Your task to perform on an android device: Go to accessibility settings Image 0: 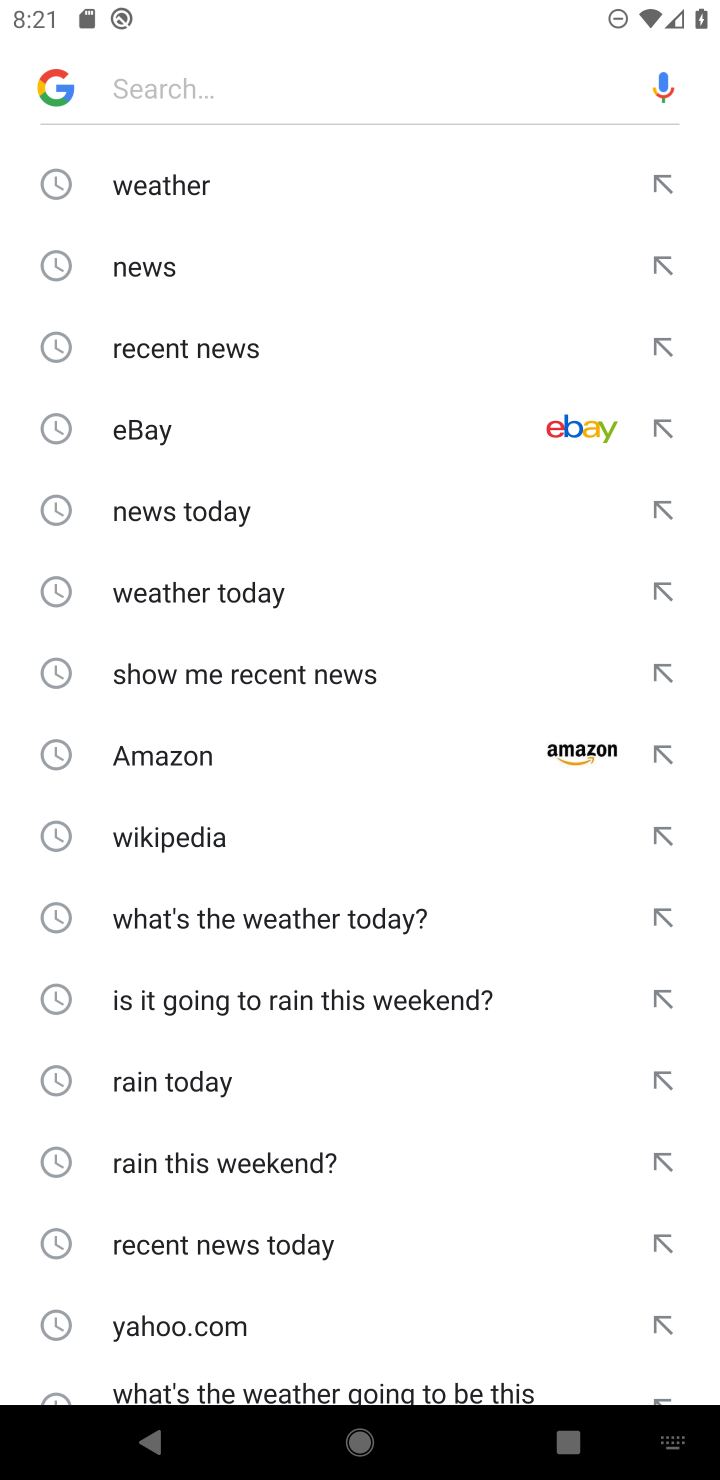
Step 0: press home button
Your task to perform on an android device: Go to accessibility settings Image 1: 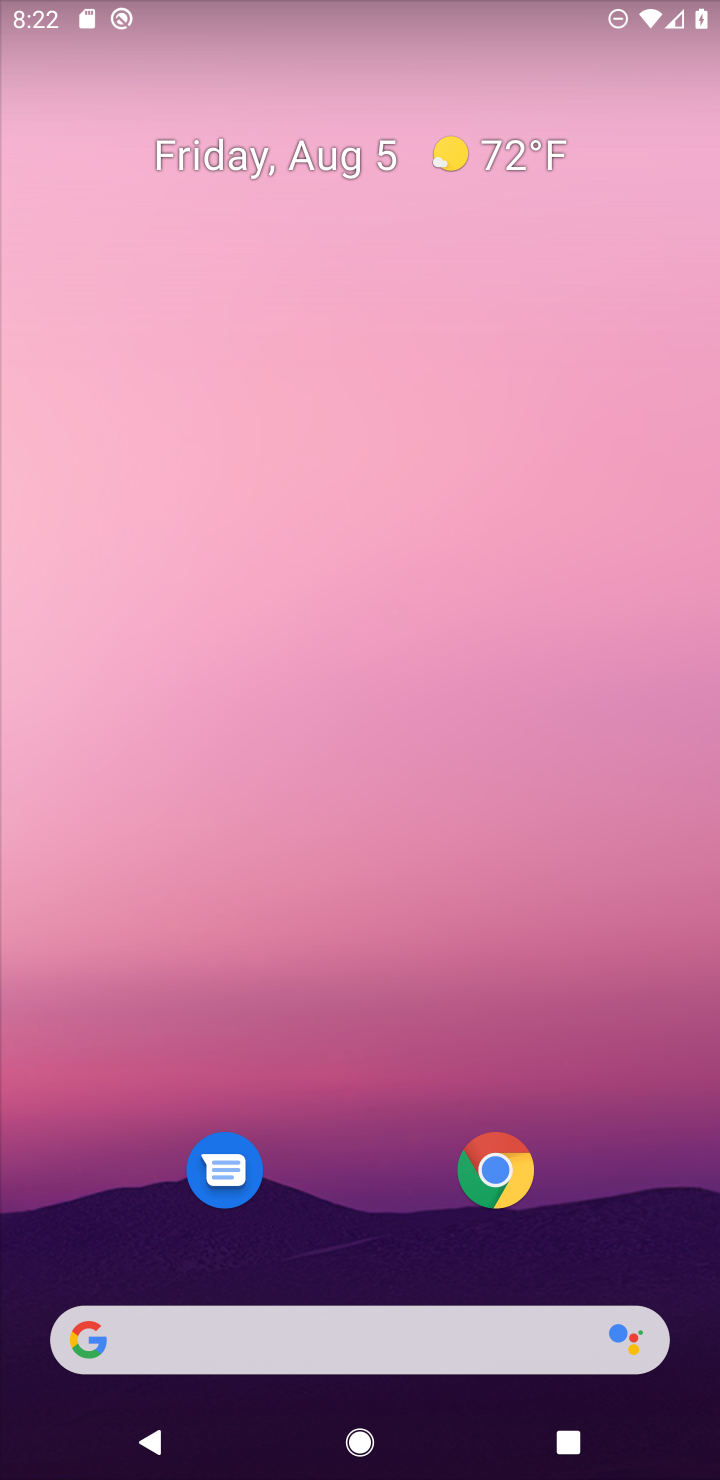
Step 1: drag from (655, 1233) to (578, 161)
Your task to perform on an android device: Go to accessibility settings Image 2: 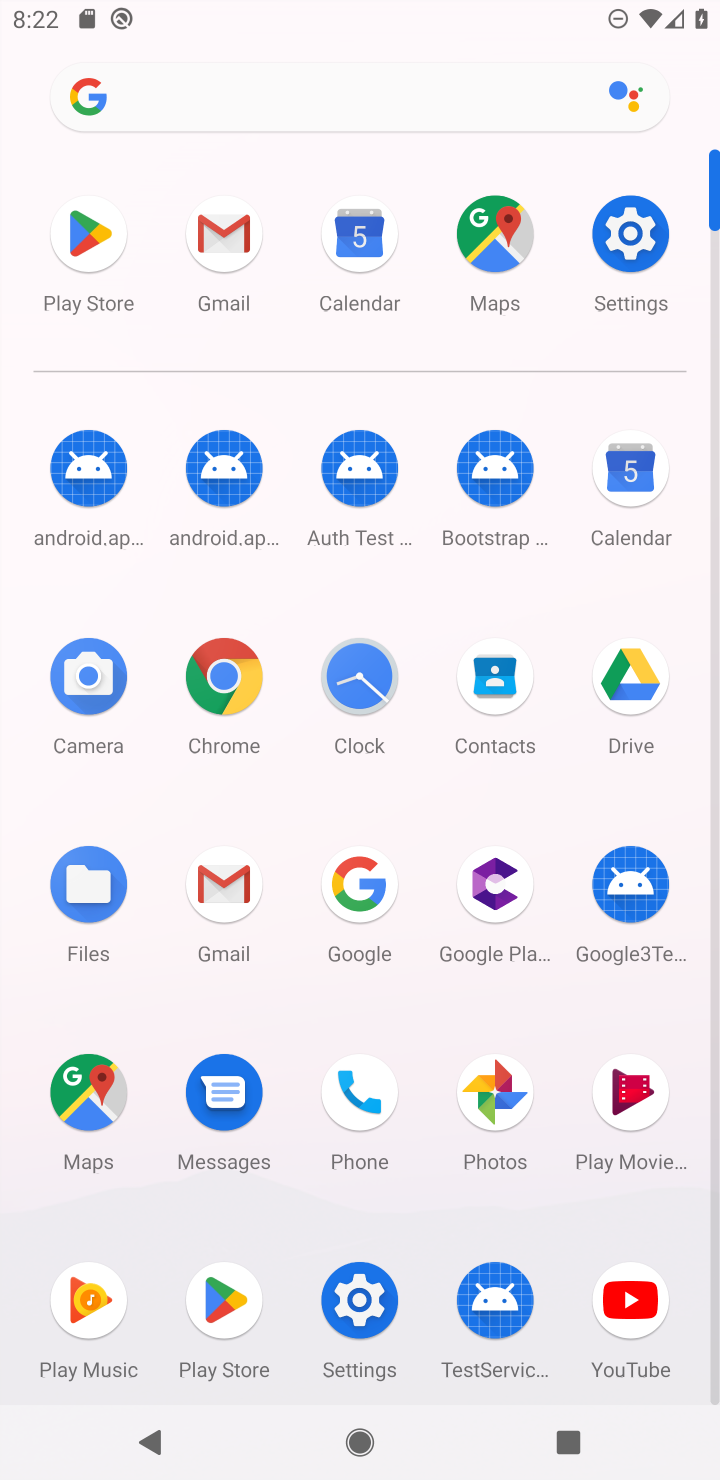
Step 2: click (363, 1304)
Your task to perform on an android device: Go to accessibility settings Image 3: 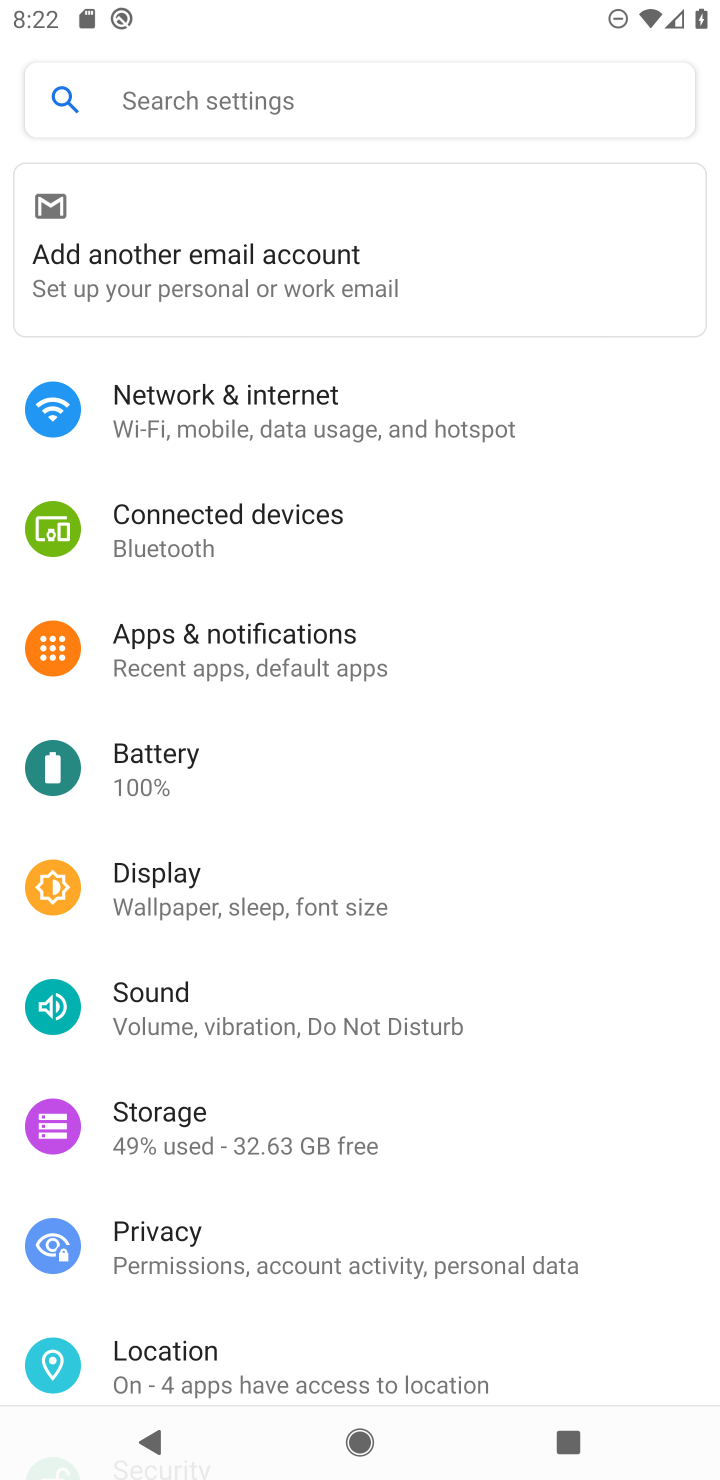
Step 3: drag from (600, 1335) to (572, 571)
Your task to perform on an android device: Go to accessibility settings Image 4: 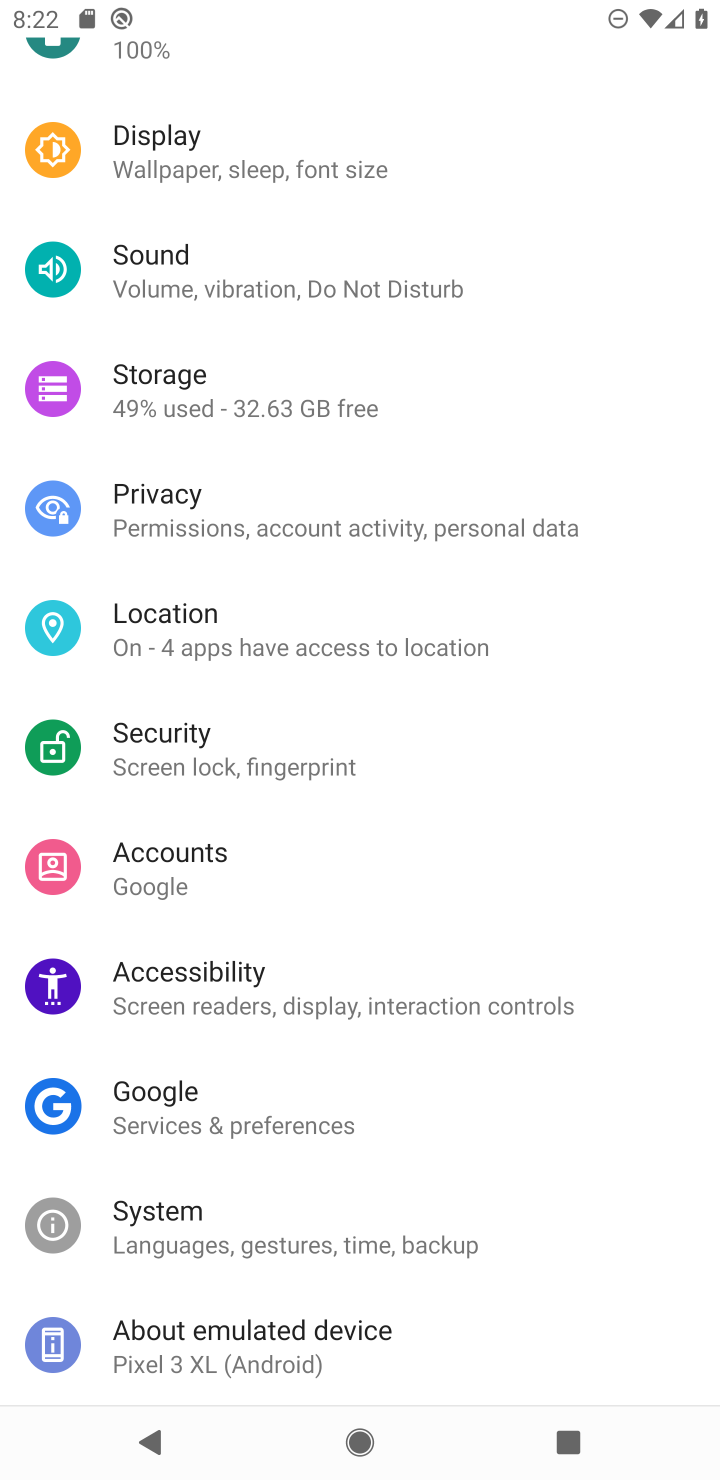
Step 4: click (154, 975)
Your task to perform on an android device: Go to accessibility settings Image 5: 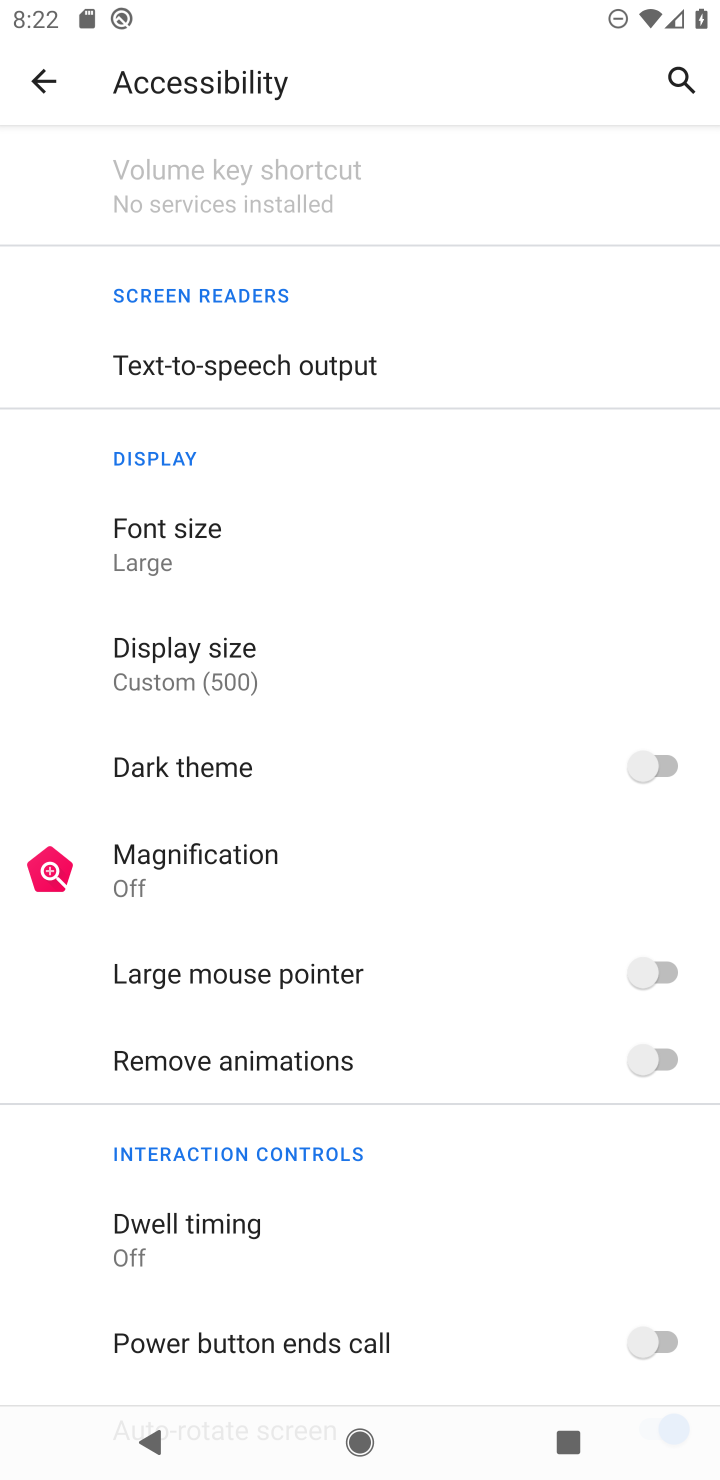
Step 5: task complete